Your task to perform on an android device: manage bookmarks in the chrome app Image 0: 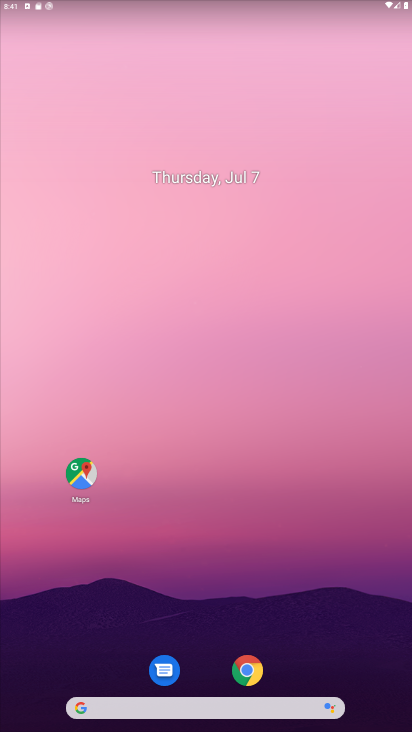
Step 0: click (256, 665)
Your task to perform on an android device: manage bookmarks in the chrome app Image 1: 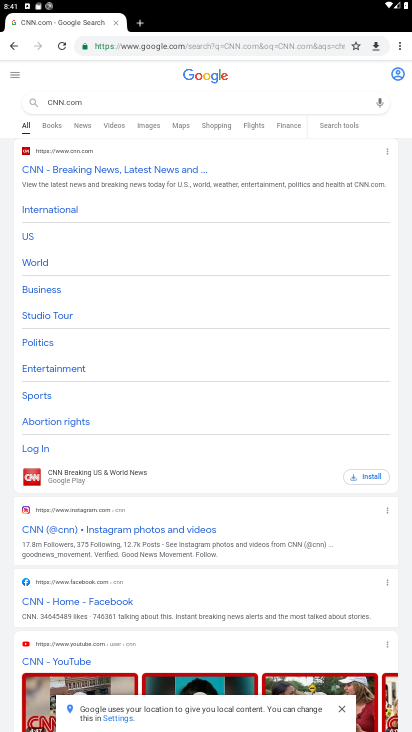
Step 1: click (399, 45)
Your task to perform on an android device: manage bookmarks in the chrome app Image 2: 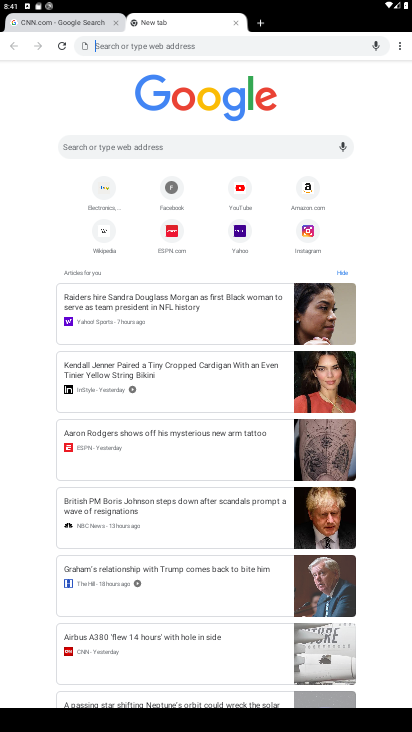
Step 2: click (399, 45)
Your task to perform on an android device: manage bookmarks in the chrome app Image 3: 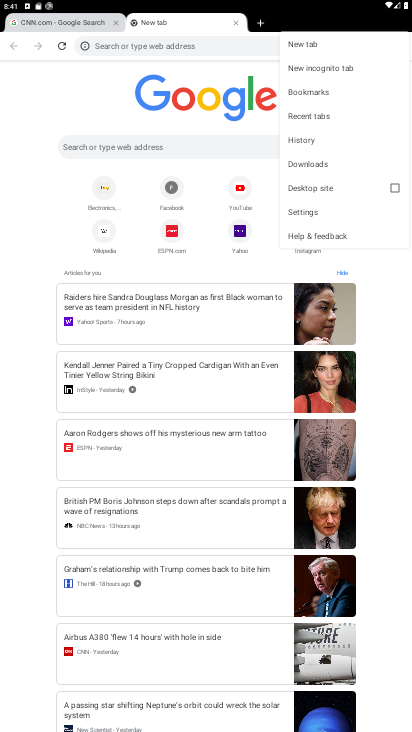
Step 3: click (334, 89)
Your task to perform on an android device: manage bookmarks in the chrome app Image 4: 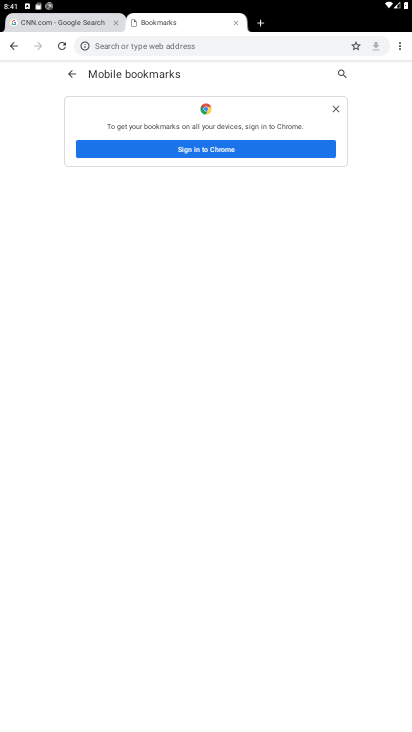
Step 4: task complete